Your task to perform on an android device: turn notification dots on Image 0: 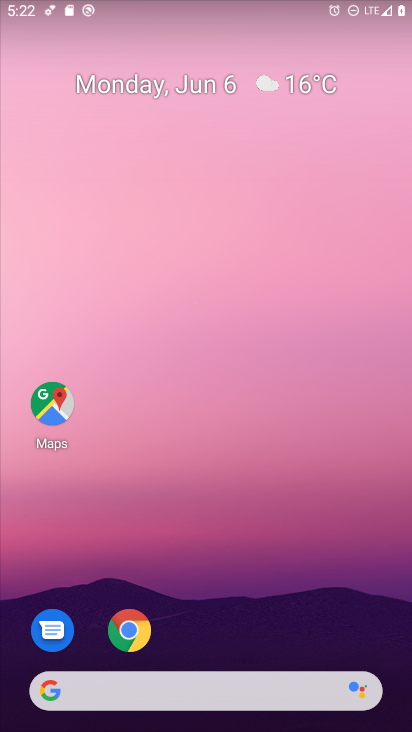
Step 0: drag from (286, 622) to (180, 19)
Your task to perform on an android device: turn notification dots on Image 1: 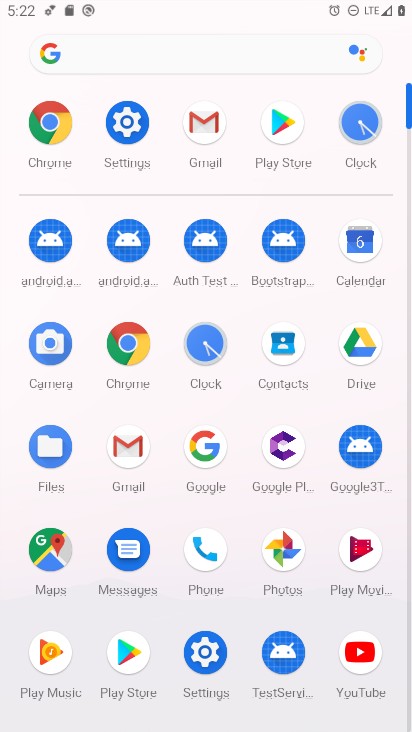
Step 1: click (132, 130)
Your task to perform on an android device: turn notification dots on Image 2: 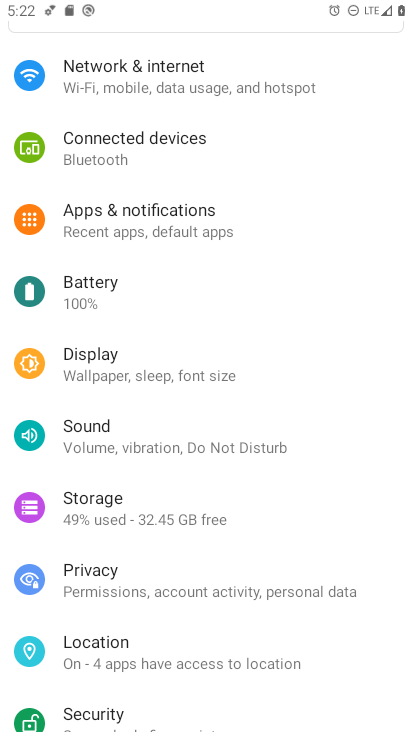
Step 2: click (167, 225)
Your task to perform on an android device: turn notification dots on Image 3: 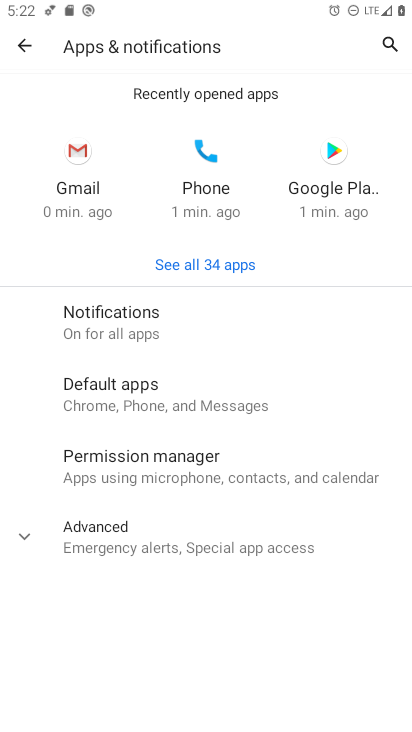
Step 3: click (166, 325)
Your task to perform on an android device: turn notification dots on Image 4: 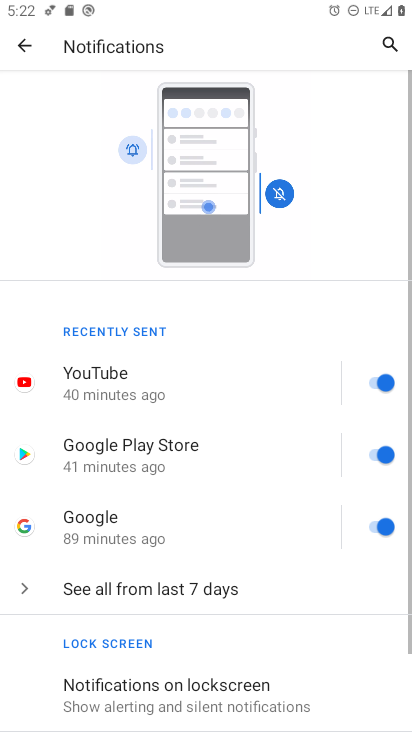
Step 4: drag from (213, 596) to (200, 101)
Your task to perform on an android device: turn notification dots on Image 5: 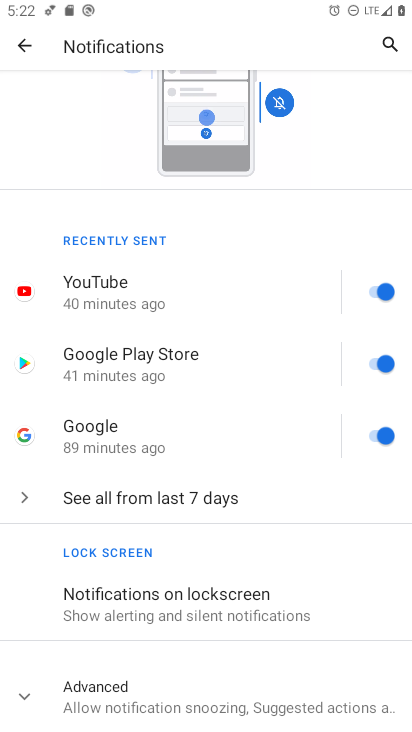
Step 5: click (222, 697)
Your task to perform on an android device: turn notification dots on Image 6: 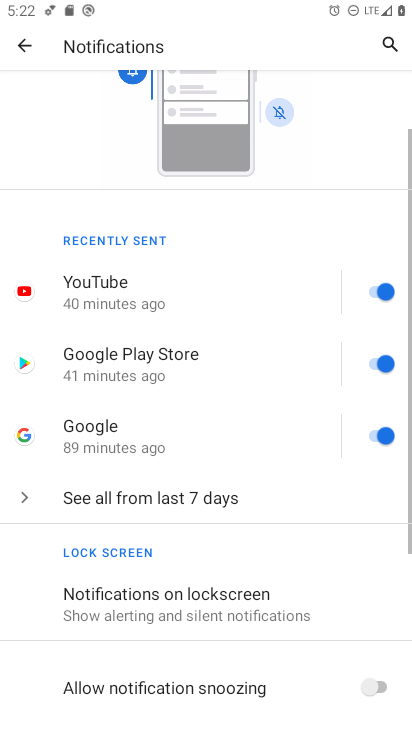
Step 6: task complete